Your task to perform on an android device: Open Google Chrome Image 0: 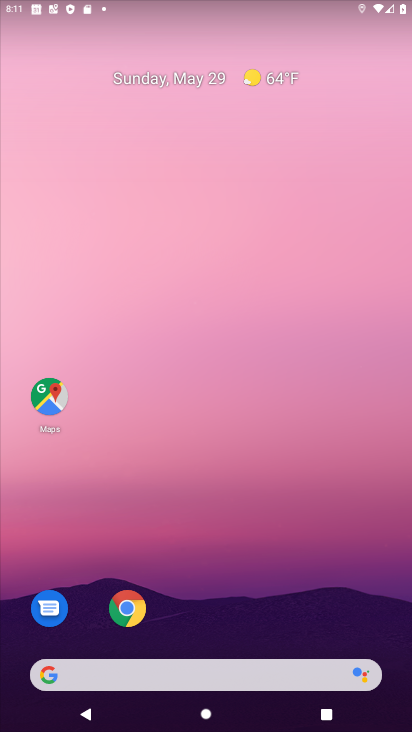
Step 0: click (132, 606)
Your task to perform on an android device: Open Google Chrome Image 1: 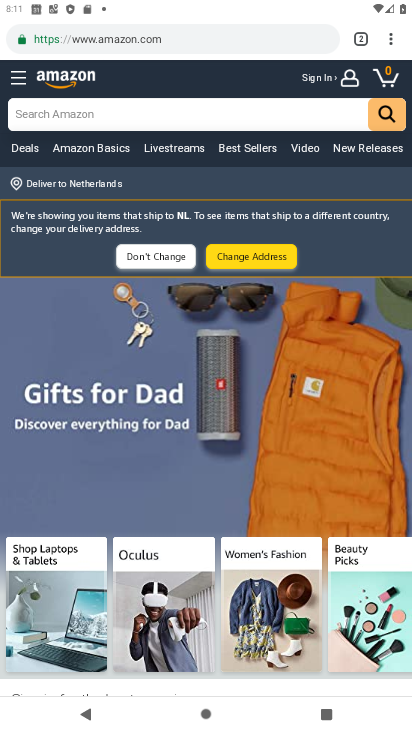
Step 1: click (387, 36)
Your task to perform on an android device: Open Google Chrome Image 2: 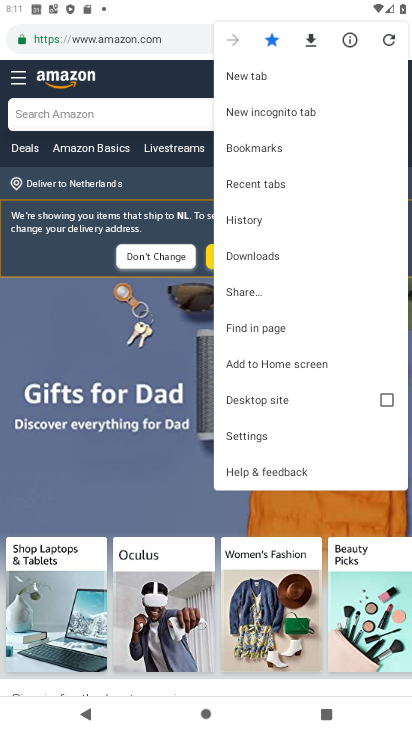
Step 2: task complete